Your task to perform on an android device: Empty the shopping cart on ebay. Add razer nari to the cart on ebay Image 0: 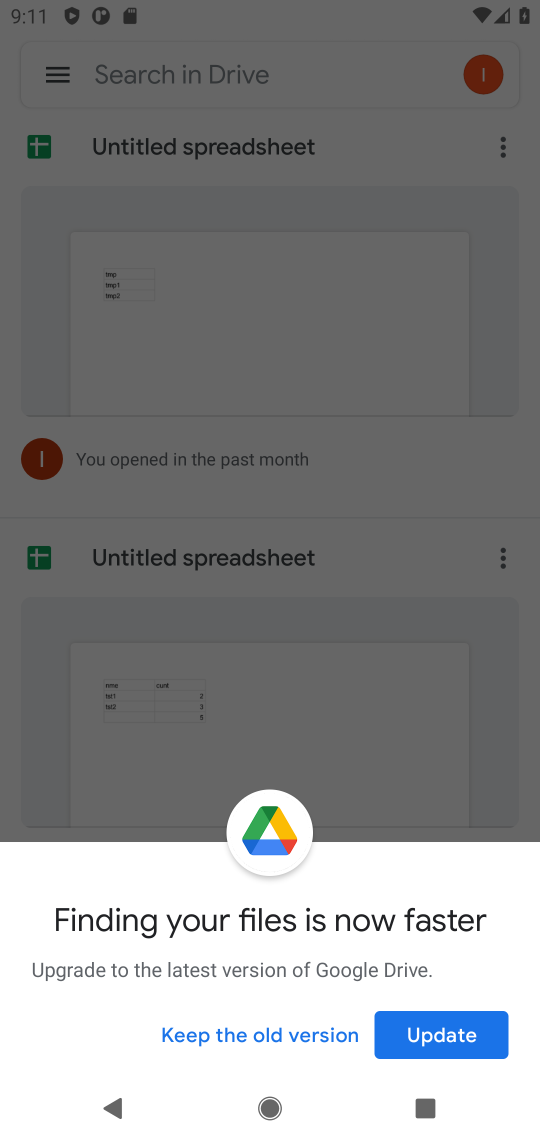
Step 0: press home button
Your task to perform on an android device: Empty the shopping cart on ebay. Add razer nari to the cart on ebay Image 1: 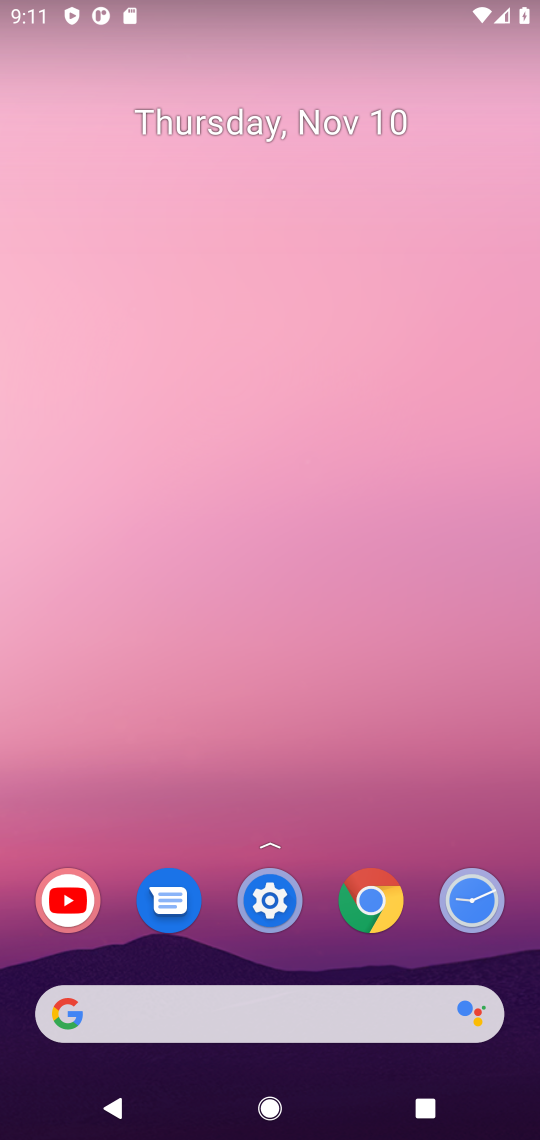
Step 1: click (367, 894)
Your task to perform on an android device: Empty the shopping cart on ebay. Add razer nari to the cart on ebay Image 2: 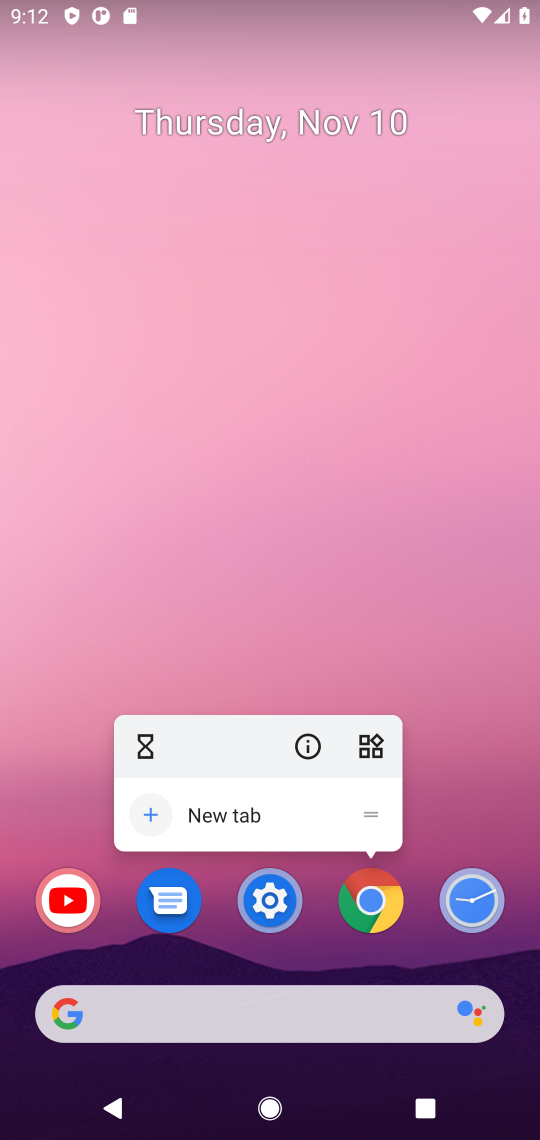
Step 2: click (367, 896)
Your task to perform on an android device: Empty the shopping cart on ebay. Add razer nari to the cart on ebay Image 3: 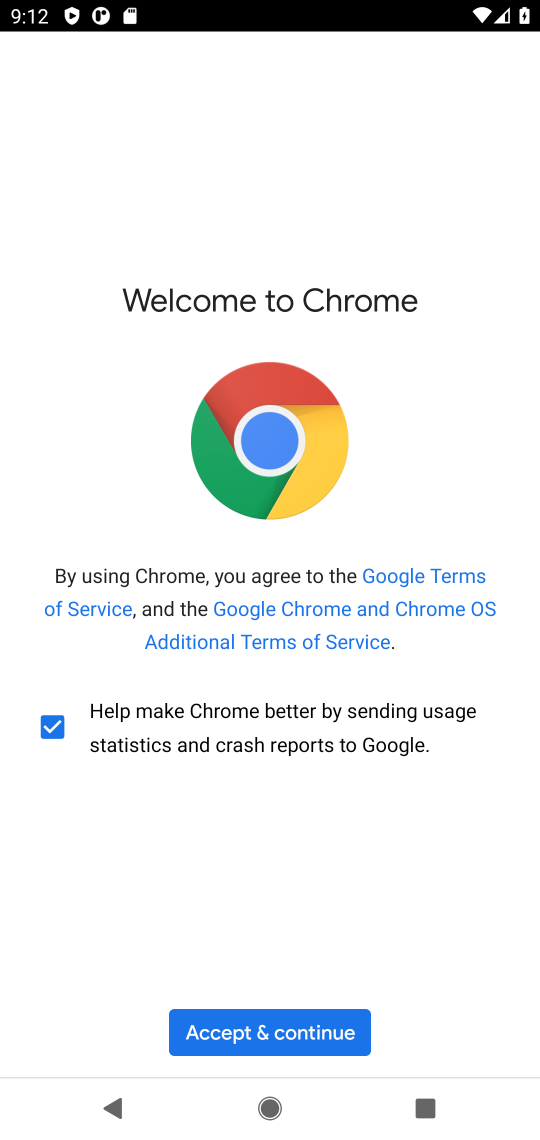
Step 3: click (262, 1040)
Your task to perform on an android device: Empty the shopping cart on ebay. Add razer nari to the cart on ebay Image 4: 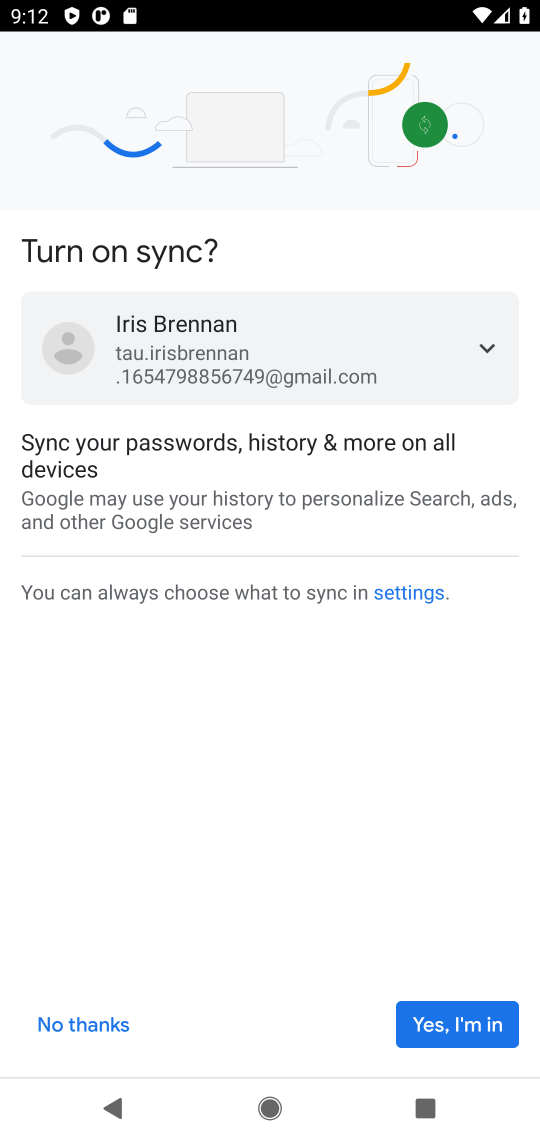
Step 4: click (452, 1021)
Your task to perform on an android device: Empty the shopping cart on ebay. Add razer nari to the cart on ebay Image 5: 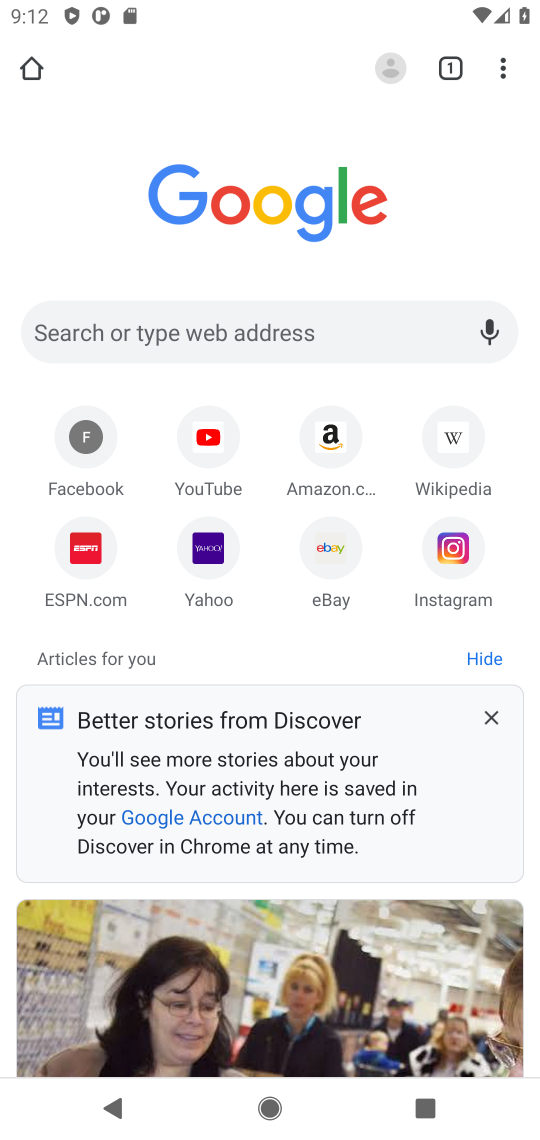
Step 5: click (223, 317)
Your task to perform on an android device: Empty the shopping cart on ebay. Add razer nari to the cart on ebay Image 6: 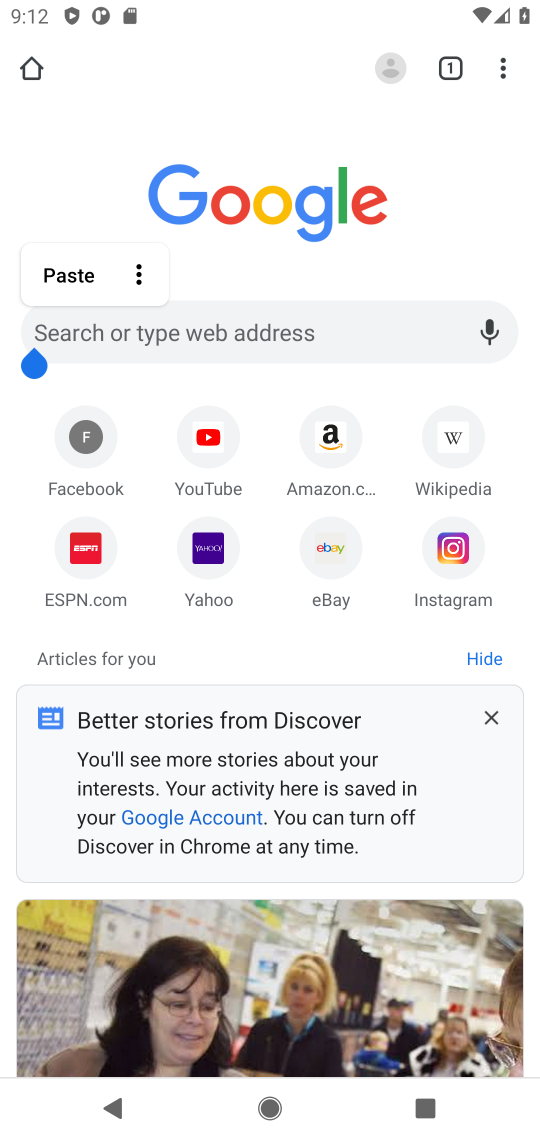
Step 6: click (223, 324)
Your task to perform on an android device: Empty the shopping cart on ebay. Add razer nari to the cart on ebay Image 7: 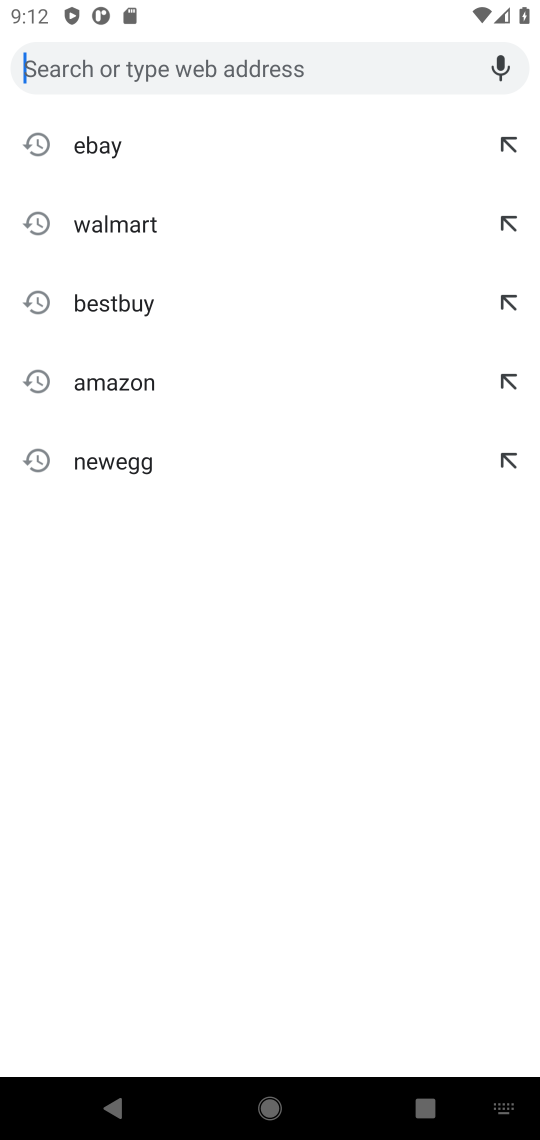
Step 7: click (93, 150)
Your task to perform on an android device: Empty the shopping cart on ebay. Add razer nari to the cart on ebay Image 8: 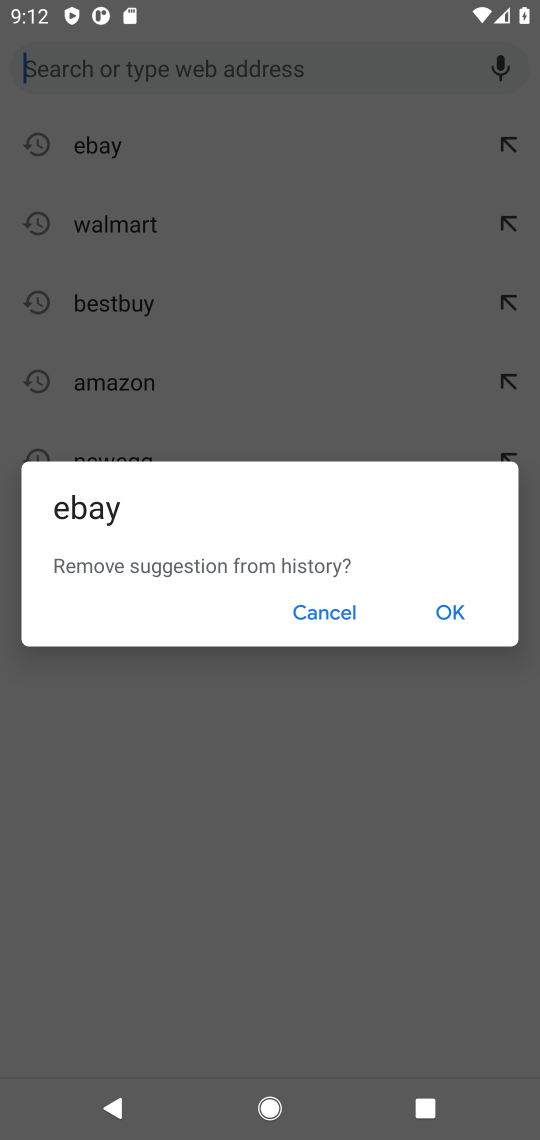
Step 8: click (308, 616)
Your task to perform on an android device: Empty the shopping cart on ebay. Add razer nari to the cart on ebay Image 9: 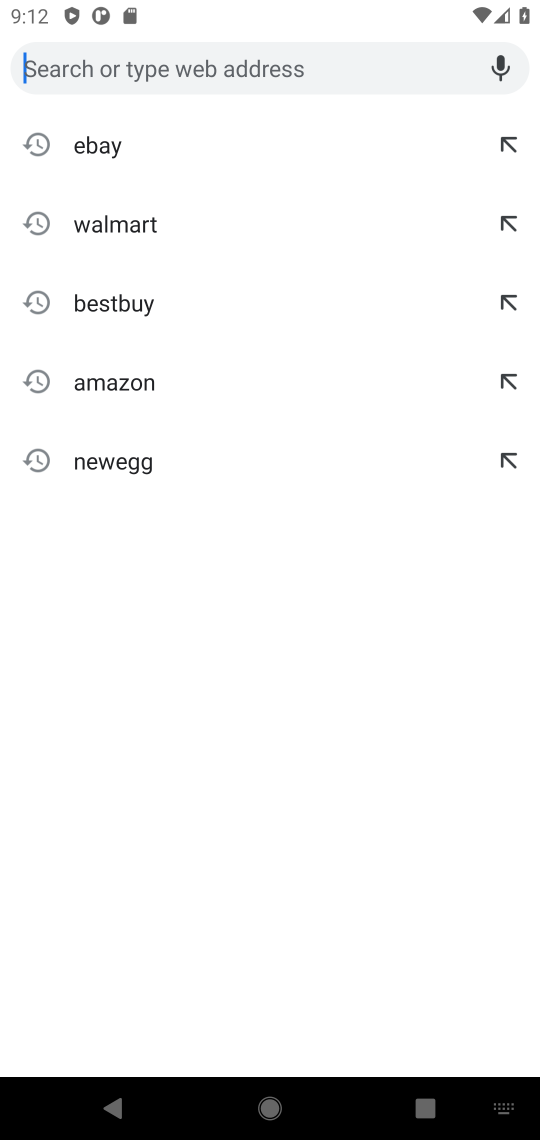
Step 9: click (80, 148)
Your task to perform on an android device: Empty the shopping cart on ebay. Add razer nari to the cart on ebay Image 10: 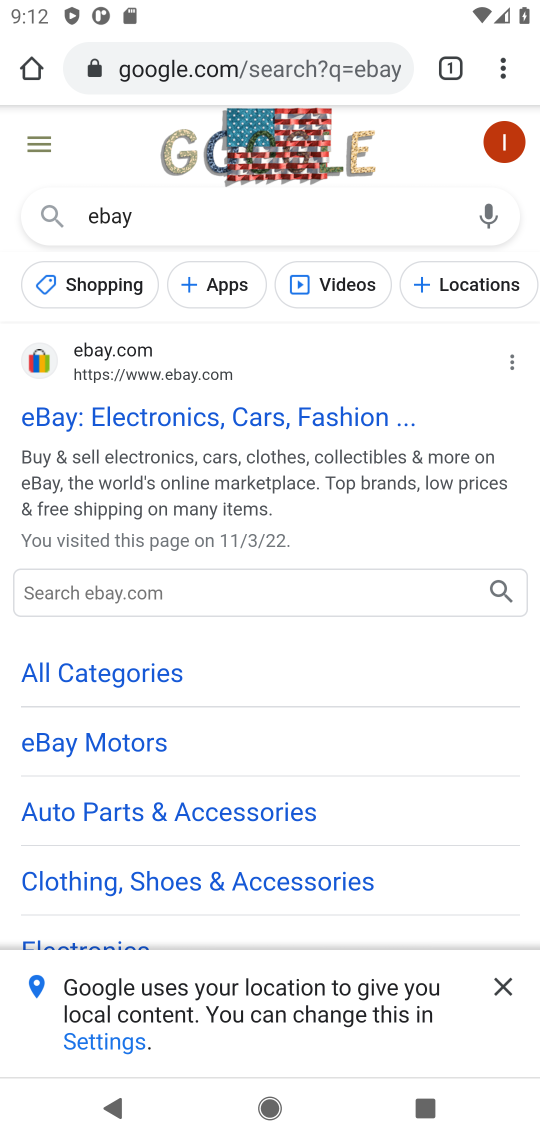
Step 10: click (120, 418)
Your task to perform on an android device: Empty the shopping cart on ebay. Add razer nari to the cart on ebay Image 11: 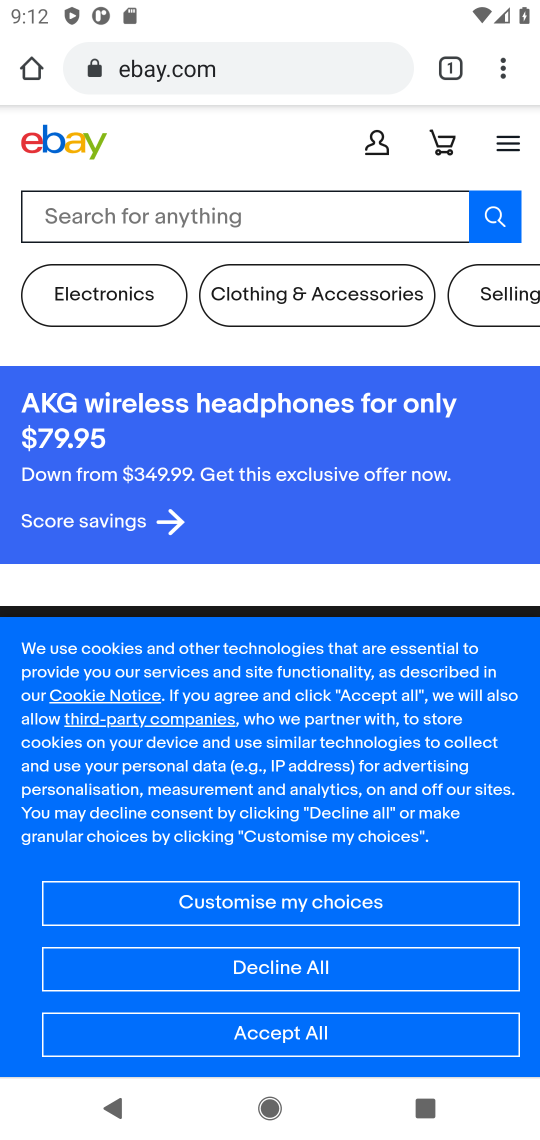
Step 11: click (169, 212)
Your task to perform on an android device: Empty the shopping cart on ebay. Add razer nari to the cart on ebay Image 12: 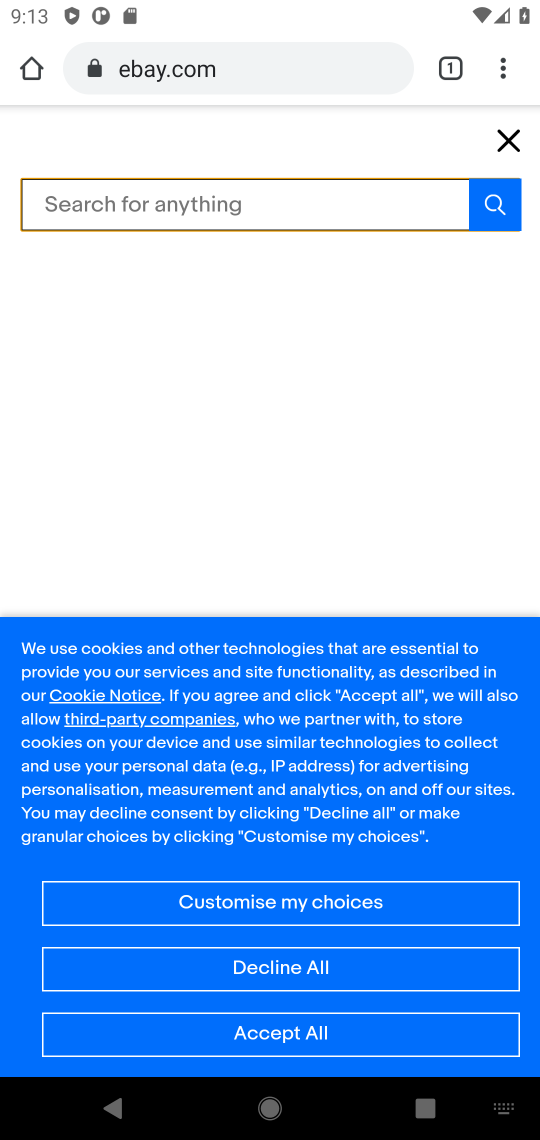
Step 12: type "razer nari"
Your task to perform on an android device: Empty the shopping cart on ebay. Add razer nari to the cart on ebay Image 13: 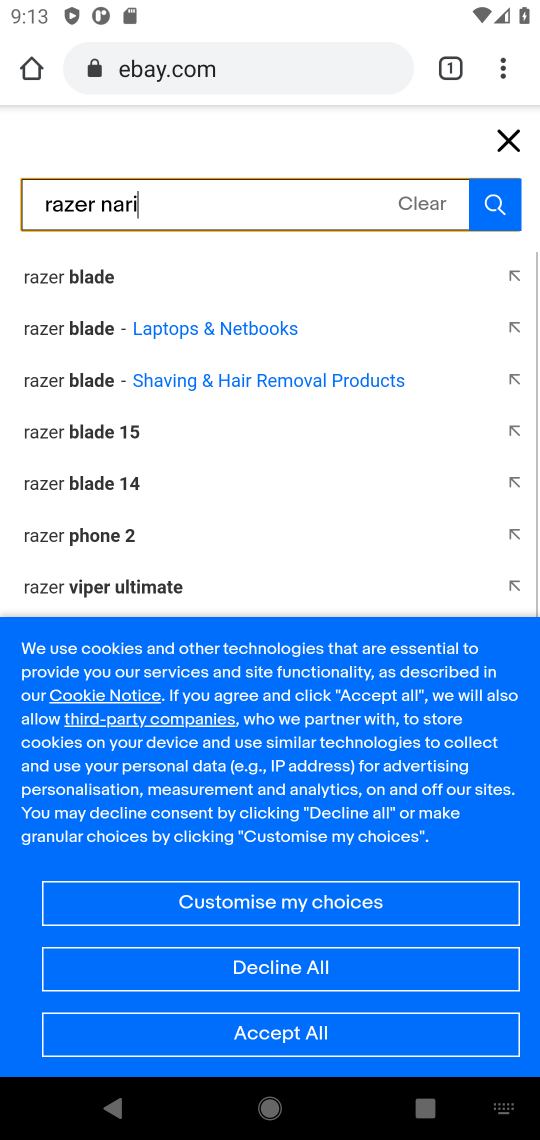
Step 13: press enter
Your task to perform on an android device: Empty the shopping cart on ebay. Add razer nari to the cart on ebay Image 14: 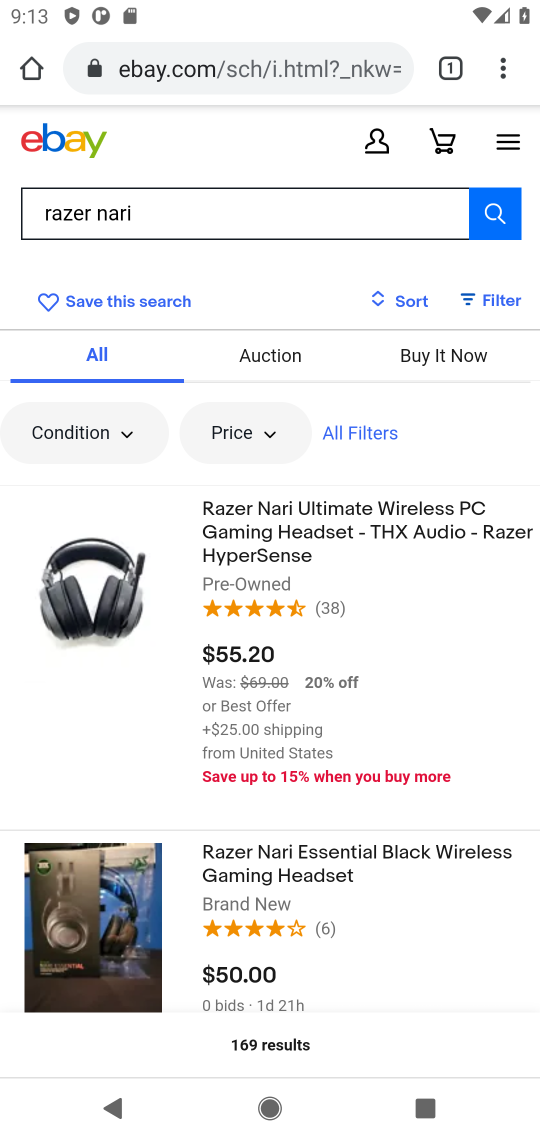
Step 14: click (370, 644)
Your task to perform on an android device: Empty the shopping cart on ebay. Add razer nari to the cart on ebay Image 15: 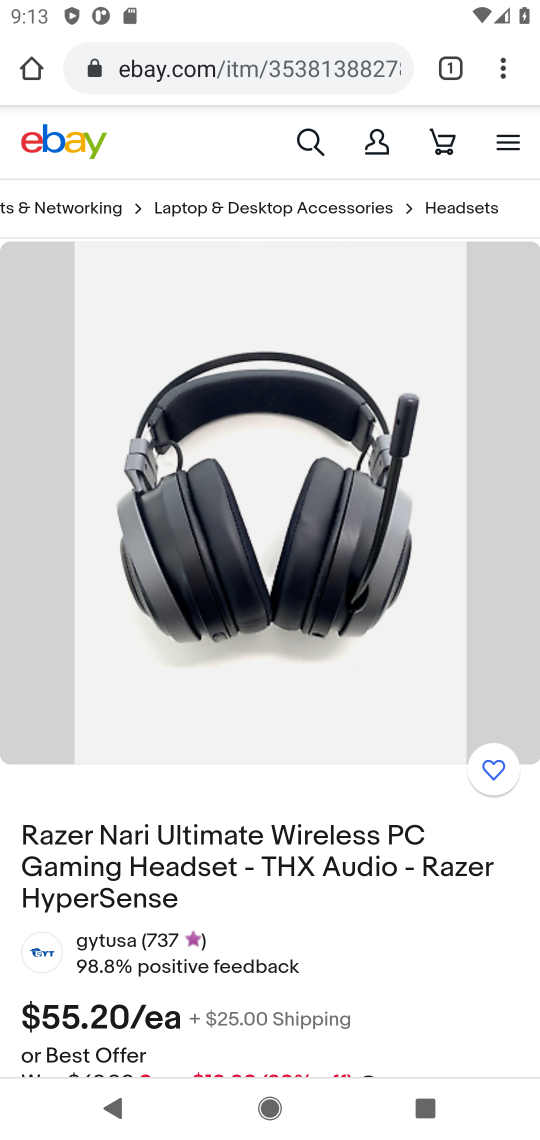
Step 15: drag from (353, 975) to (539, 210)
Your task to perform on an android device: Empty the shopping cart on ebay. Add razer nari to the cart on ebay Image 16: 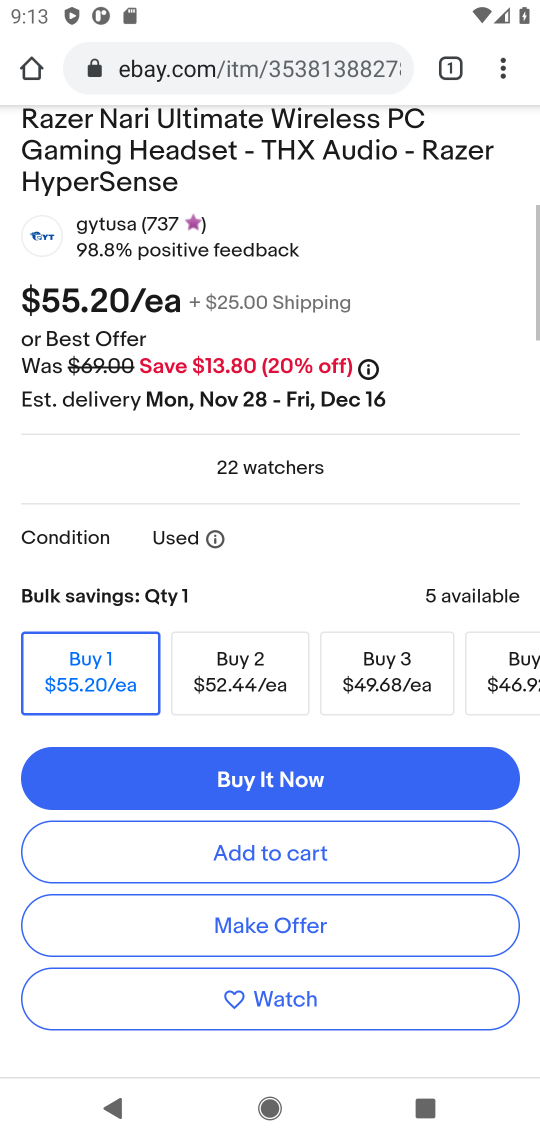
Step 16: click (292, 893)
Your task to perform on an android device: Empty the shopping cart on ebay. Add razer nari to the cart on ebay Image 17: 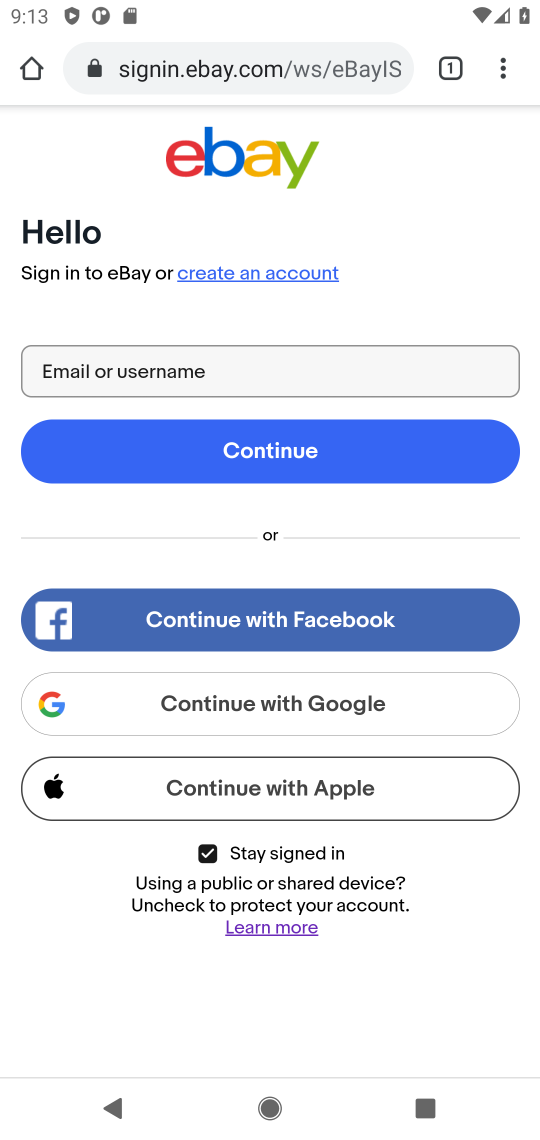
Step 17: press back button
Your task to perform on an android device: Empty the shopping cart on ebay. Add razer nari to the cart on ebay Image 18: 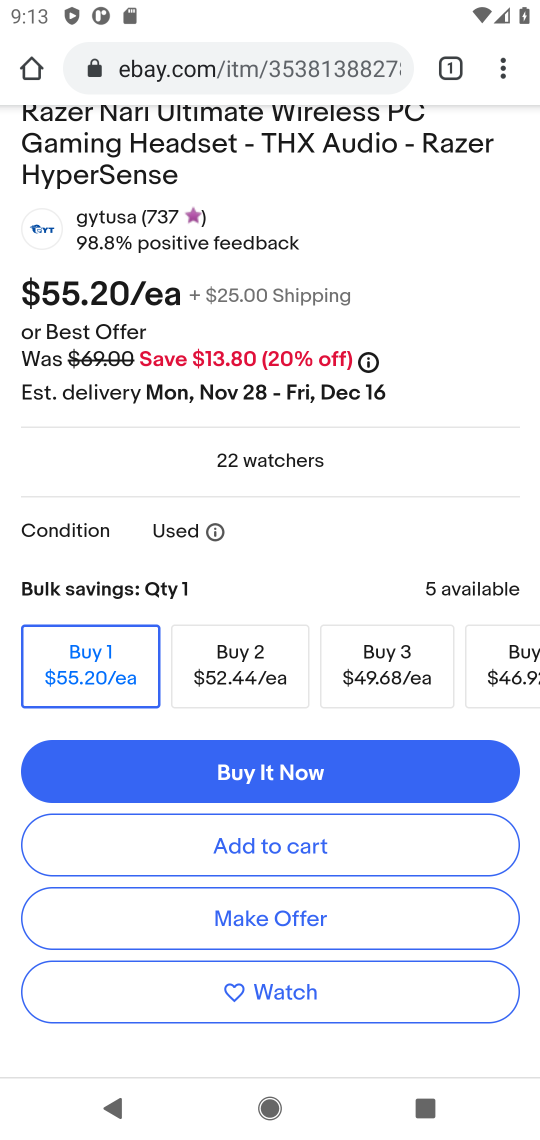
Step 18: drag from (302, 908) to (441, 310)
Your task to perform on an android device: Empty the shopping cart on ebay. Add razer nari to the cart on ebay Image 19: 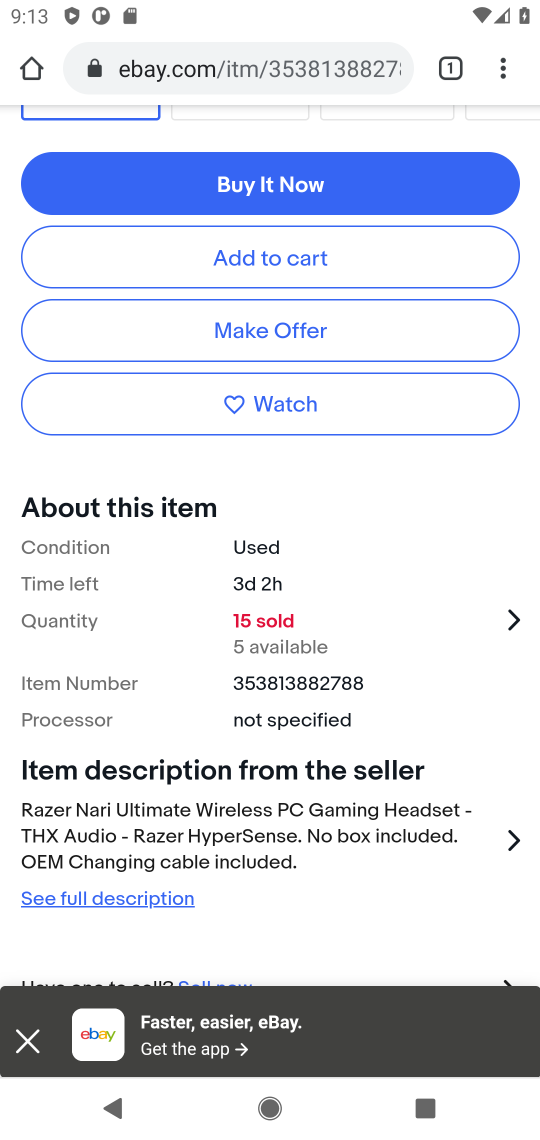
Step 19: click (279, 257)
Your task to perform on an android device: Empty the shopping cart on ebay. Add razer nari to the cart on ebay Image 20: 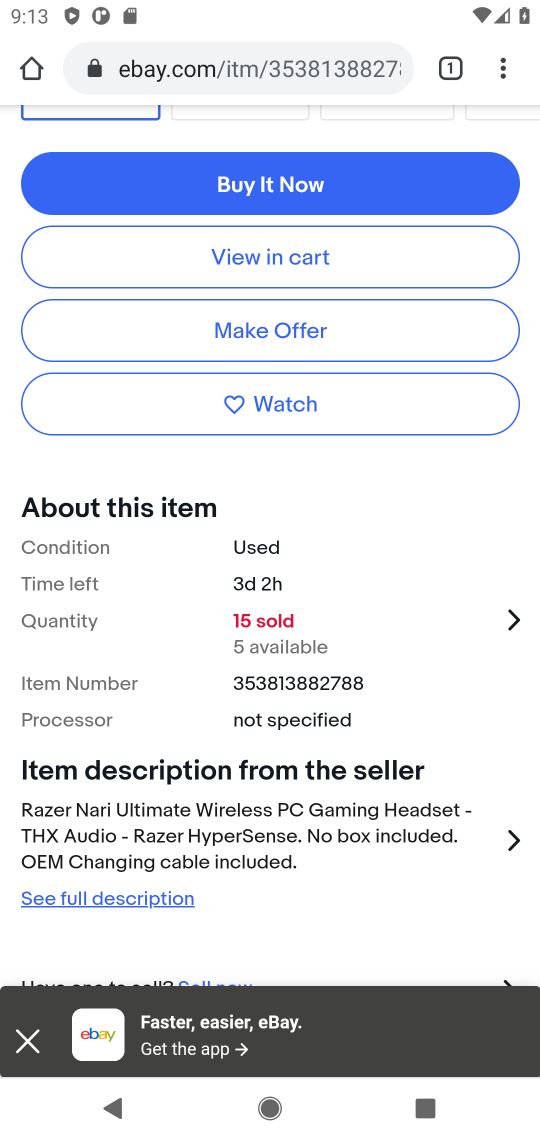
Step 20: click (263, 256)
Your task to perform on an android device: Empty the shopping cart on ebay. Add razer nari to the cart on ebay Image 21: 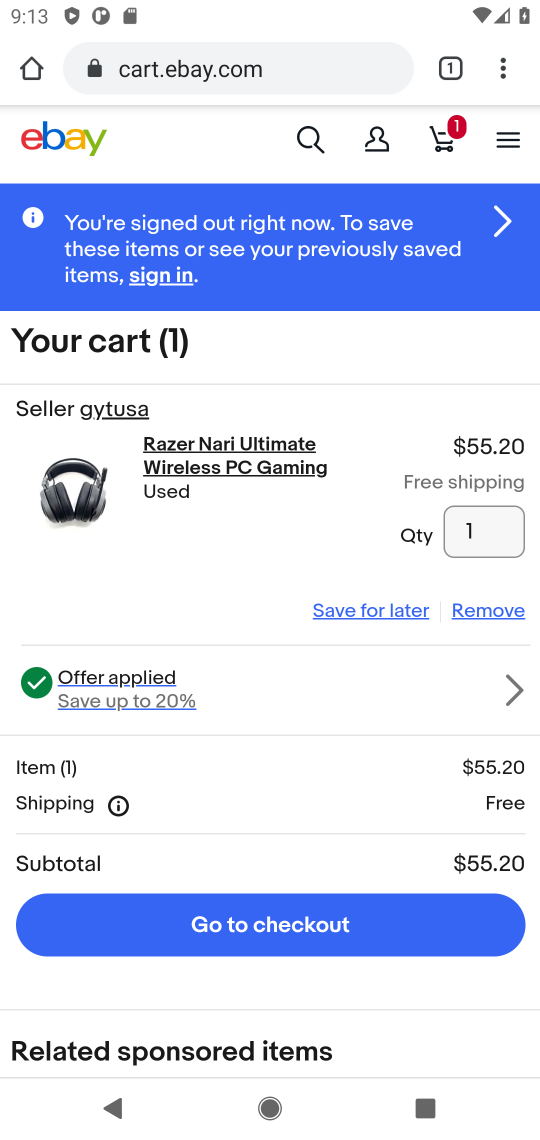
Step 21: task complete